Your task to perform on an android device: change notifications settings Image 0: 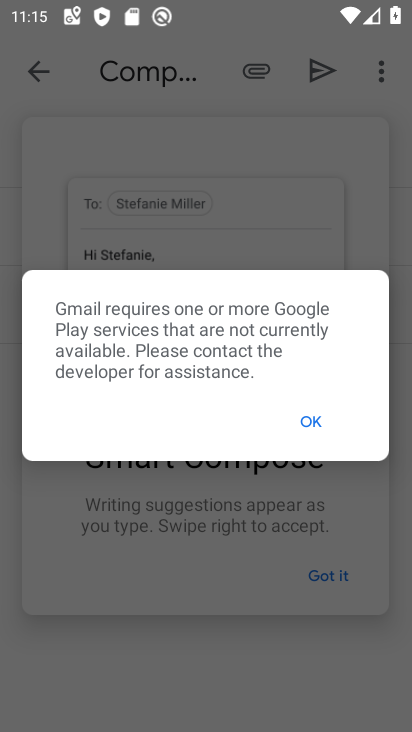
Step 0: press home button
Your task to perform on an android device: change notifications settings Image 1: 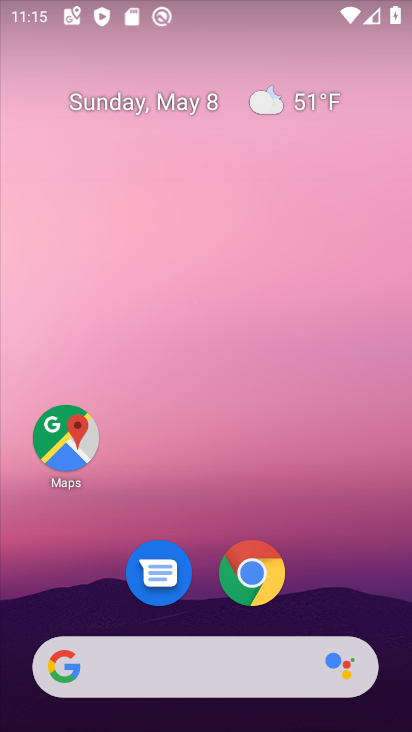
Step 1: drag from (167, 633) to (172, 233)
Your task to perform on an android device: change notifications settings Image 2: 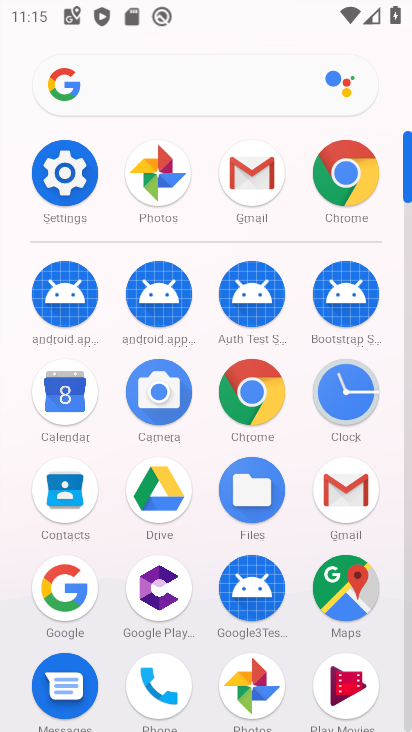
Step 2: click (65, 181)
Your task to perform on an android device: change notifications settings Image 3: 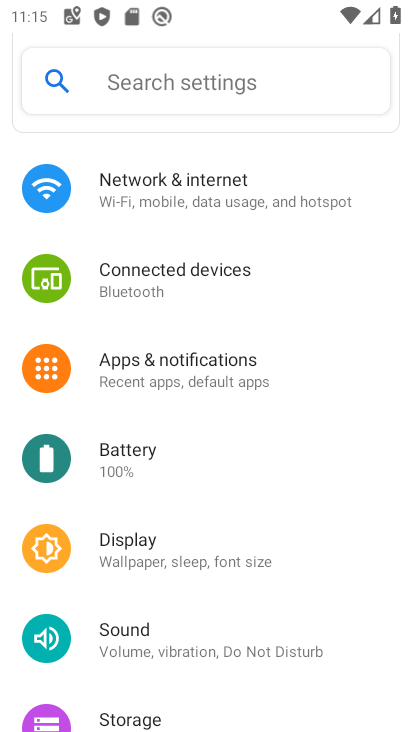
Step 3: click (135, 369)
Your task to perform on an android device: change notifications settings Image 4: 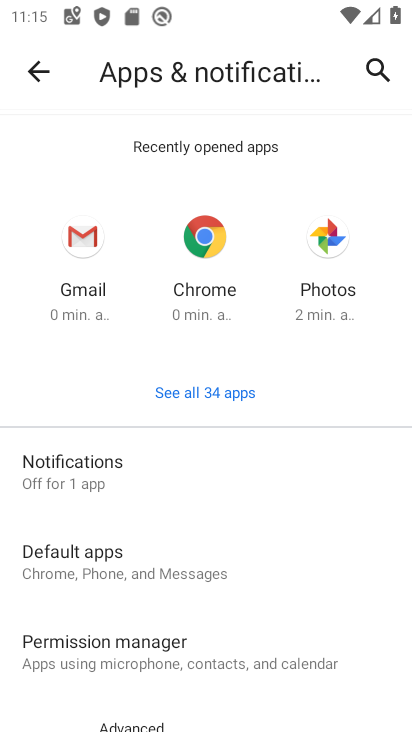
Step 4: click (46, 474)
Your task to perform on an android device: change notifications settings Image 5: 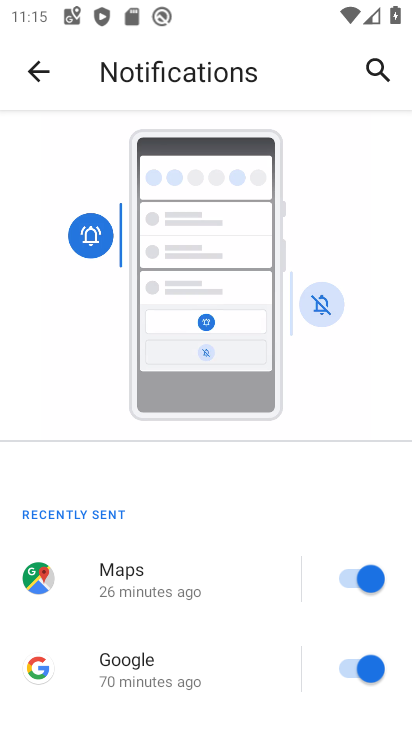
Step 5: click (352, 573)
Your task to perform on an android device: change notifications settings Image 6: 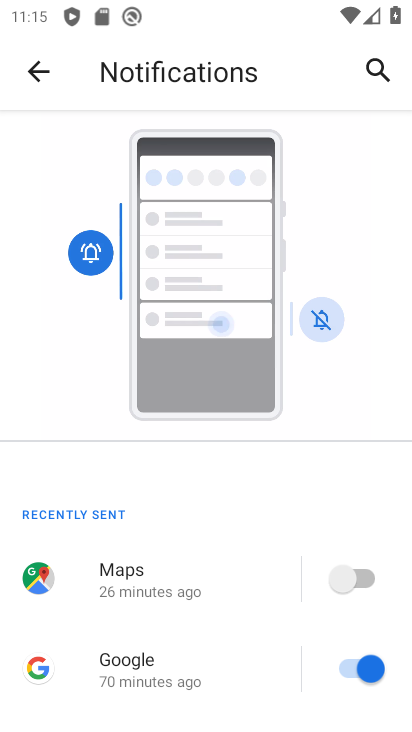
Step 6: click (346, 662)
Your task to perform on an android device: change notifications settings Image 7: 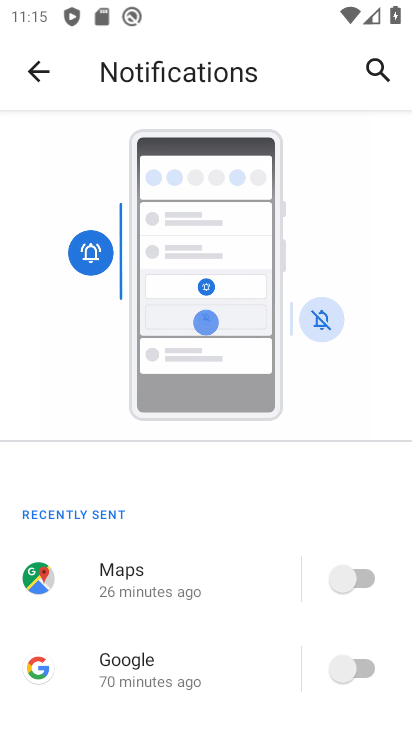
Step 7: drag from (275, 718) to (275, 386)
Your task to perform on an android device: change notifications settings Image 8: 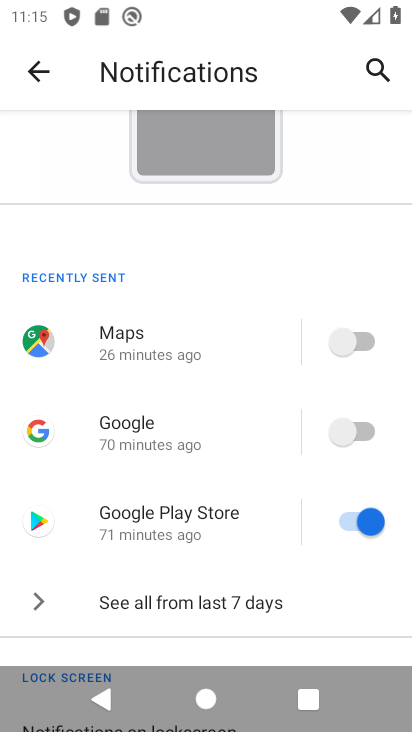
Step 8: click (358, 522)
Your task to perform on an android device: change notifications settings Image 9: 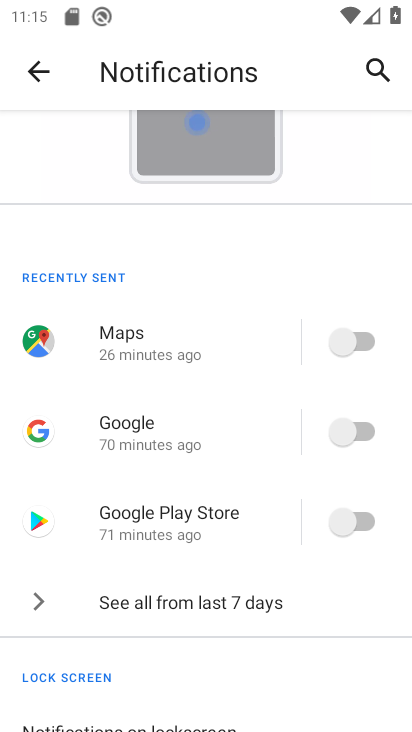
Step 9: click (209, 596)
Your task to perform on an android device: change notifications settings Image 10: 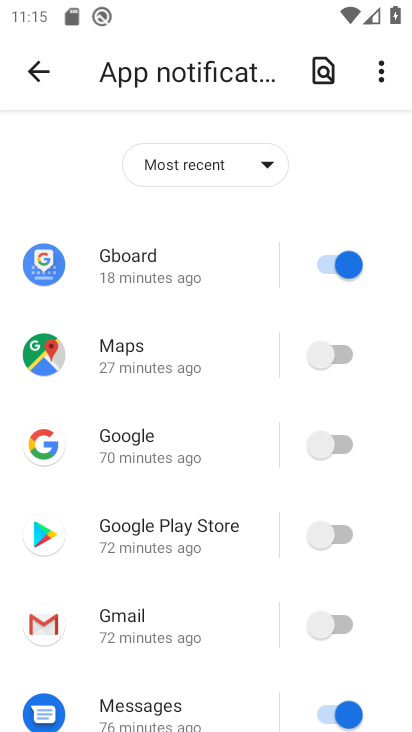
Step 10: click (336, 259)
Your task to perform on an android device: change notifications settings Image 11: 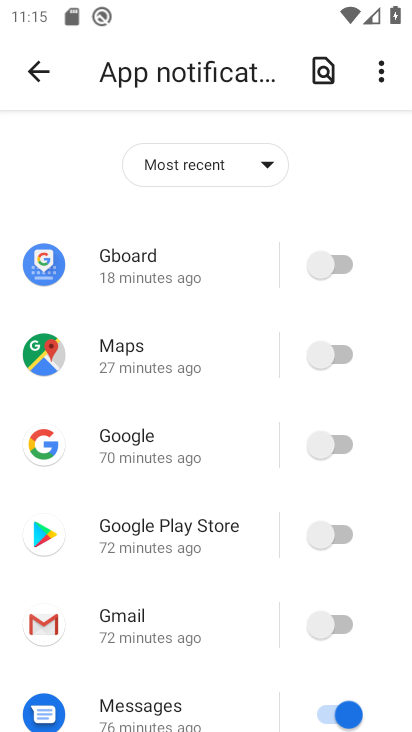
Step 11: click (329, 720)
Your task to perform on an android device: change notifications settings Image 12: 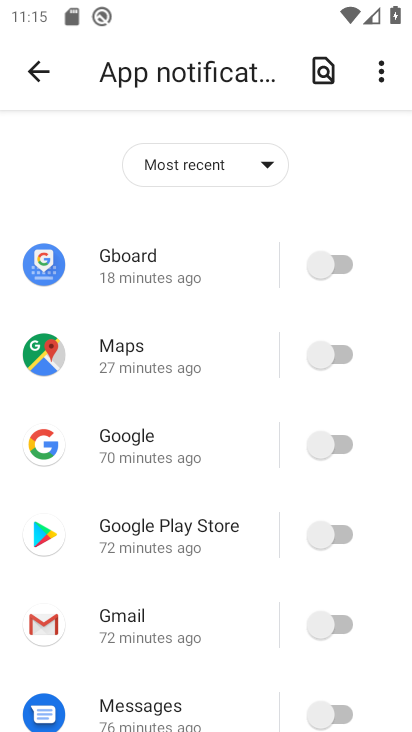
Step 12: task complete